Your task to perform on an android device: turn on wifi Image 0: 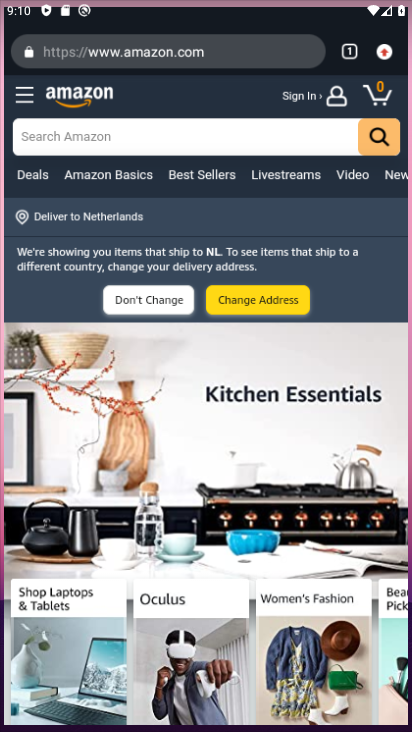
Step 0: drag from (55, 408) to (142, 408)
Your task to perform on an android device: turn on wifi Image 1: 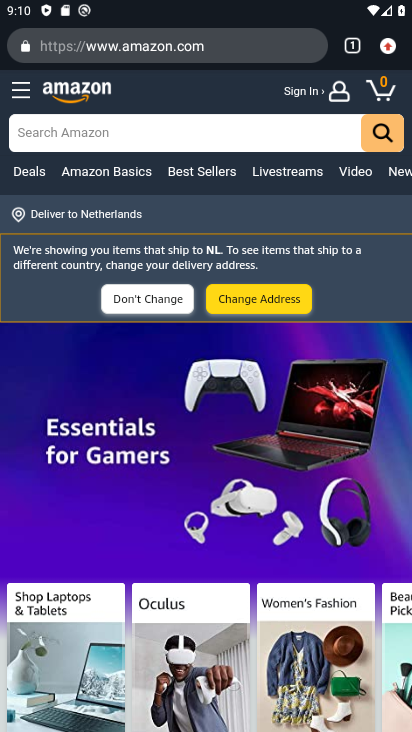
Step 1: press home button
Your task to perform on an android device: turn on wifi Image 2: 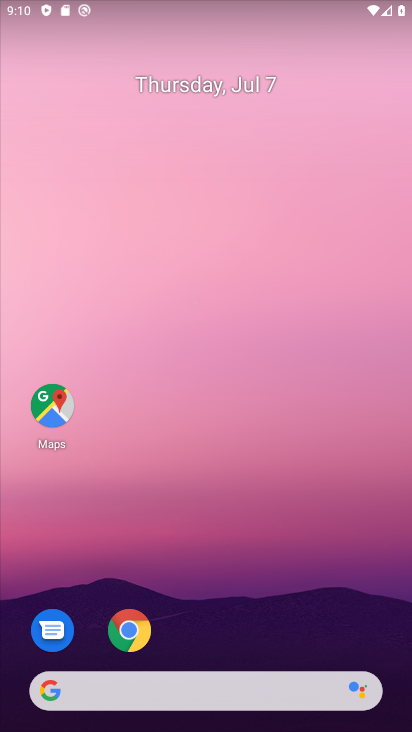
Step 2: drag from (164, 690) to (207, 333)
Your task to perform on an android device: turn on wifi Image 3: 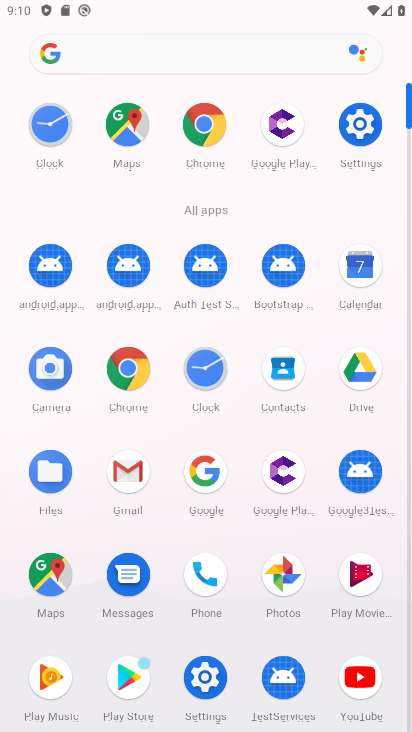
Step 3: click (367, 128)
Your task to perform on an android device: turn on wifi Image 4: 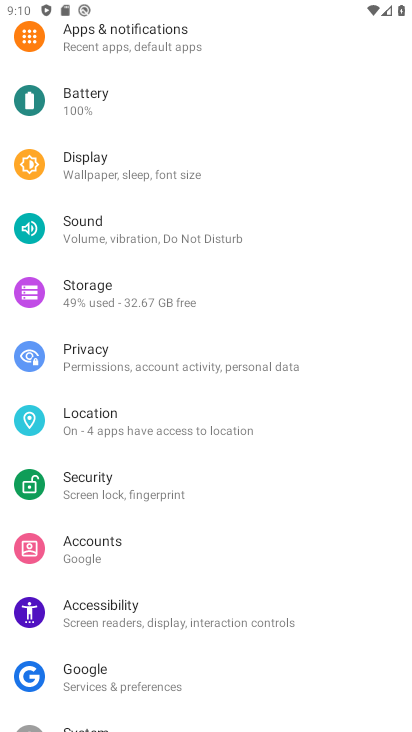
Step 4: drag from (126, 31) to (158, 410)
Your task to perform on an android device: turn on wifi Image 5: 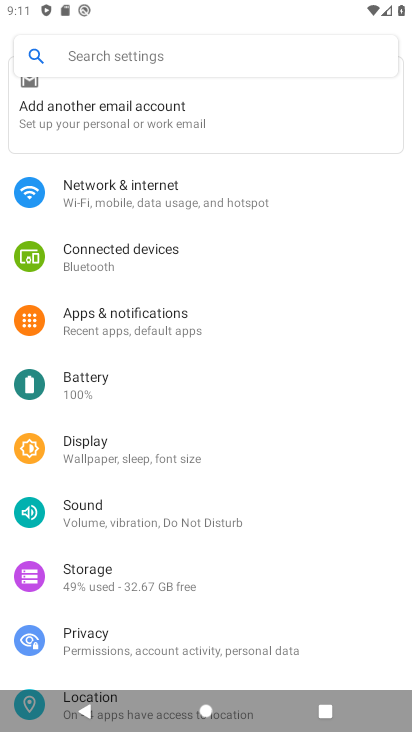
Step 5: click (114, 189)
Your task to perform on an android device: turn on wifi Image 6: 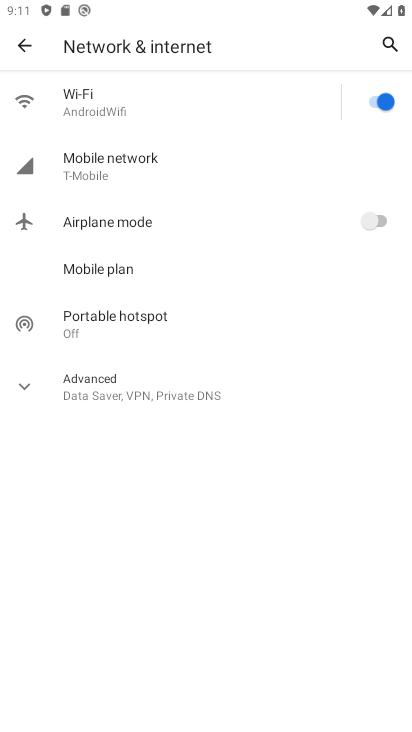
Step 6: task complete